Your task to perform on an android device: Open calendar and show me the fourth week of next month Image 0: 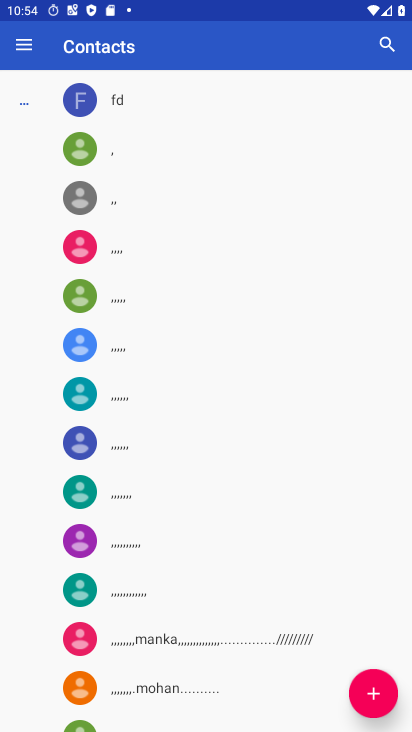
Step 0: press home button
Your task to perform on an android device: Open calendar and show me the fourth week of next month Image 1: 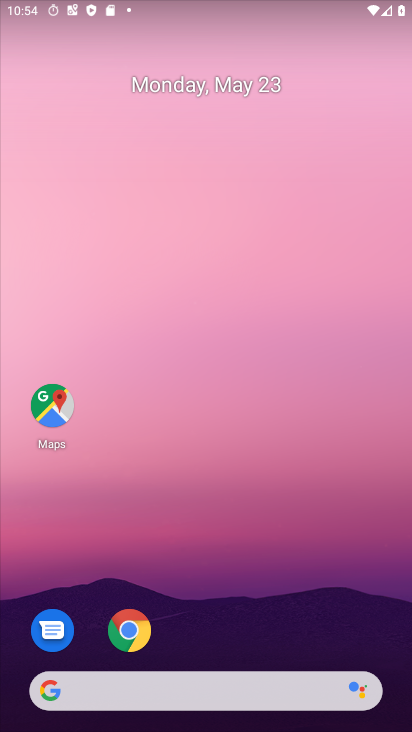
Step 1: drag from (289, 631) to (319, 0)
Your task to perform on an android device: Open calendar and show me the fourth week of next month Image 2: 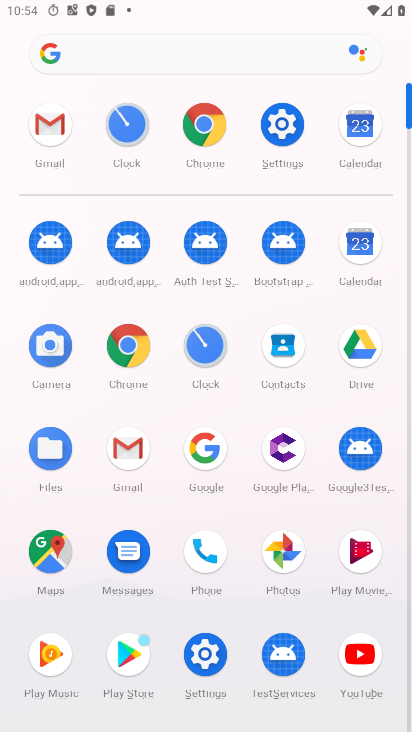
Step 2: click (354, 128)
Your task to perform on an android device: Open calendar and show me the fourth week of next month Image 3: 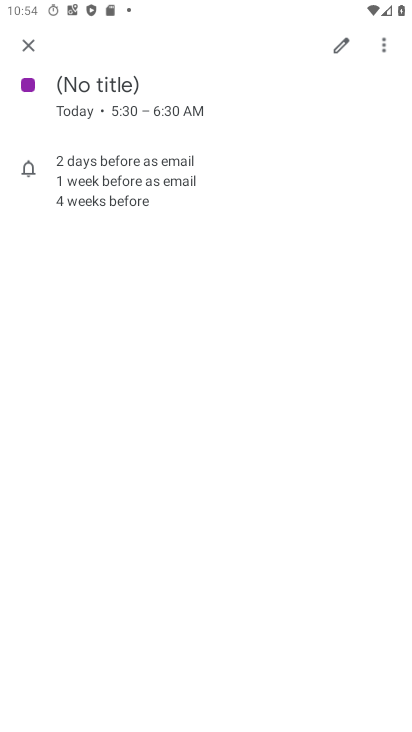
Step 3: click (28, 46)
Your task to perform on an android device: Open calendar and show me the fourth week of next month Image 4: 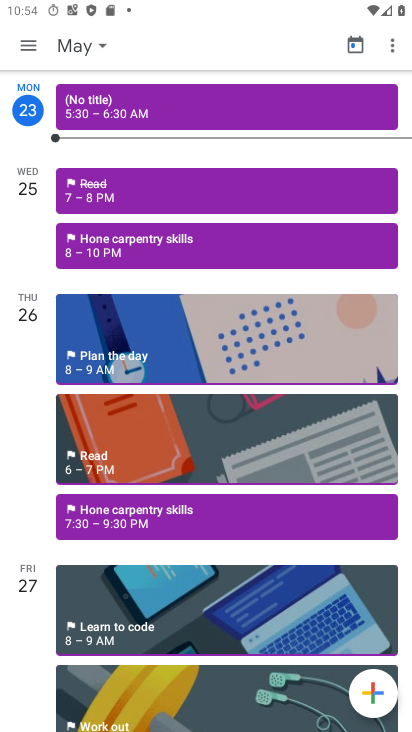
Step 4: click (99, 46)
Your task to perform on an android device: Open calendar and show me the fourth week of next month Image 5: 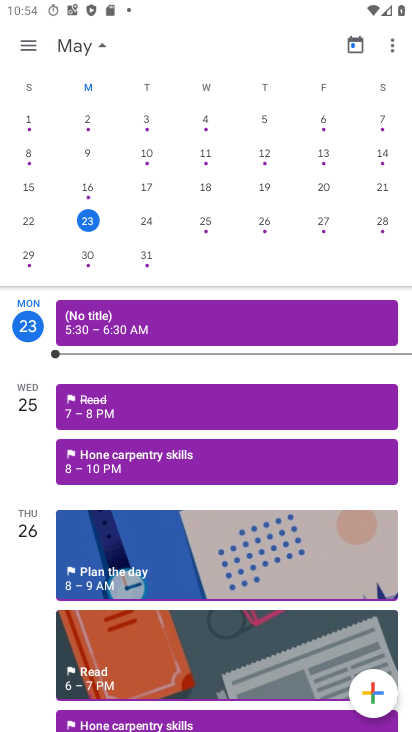
Step 5: drag from (355, 227) to (0, 645)
Your task to perform on an android device: Open calendar and show me the fourth week of next month Image 6: 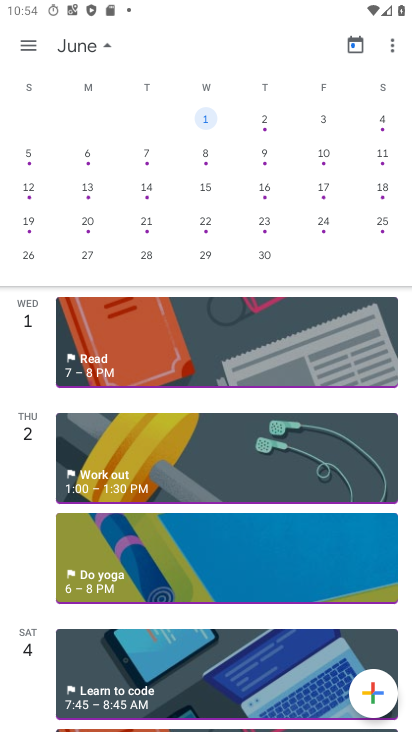
Step 6: click (31, 43)
Your task to perform on an android device: Open calendar and show me the fourth week of next month Image 7: 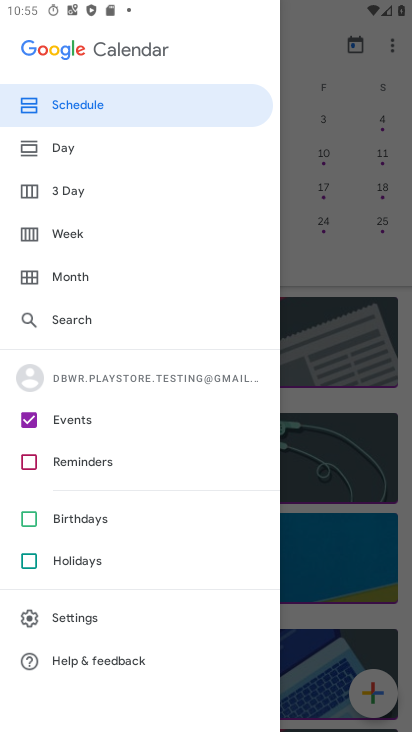
Step 7: click (49, 230)
Your task to perform on an android device: Open calendar and show me the fourth week of next month Image 8: 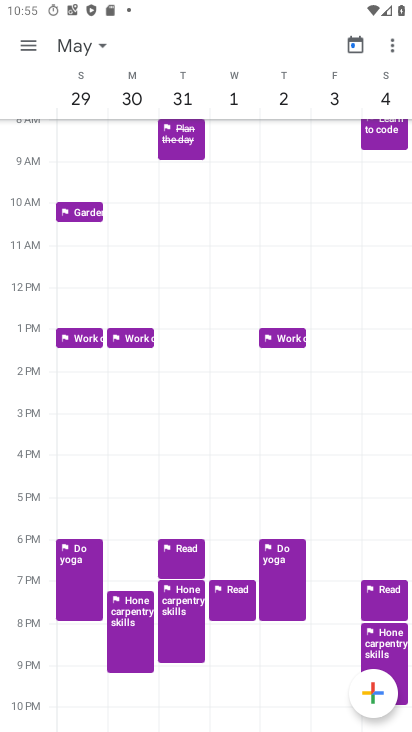
Step 8: task complete